Your task to perform on an android device: turn pop-ups off in chrome Image 0: 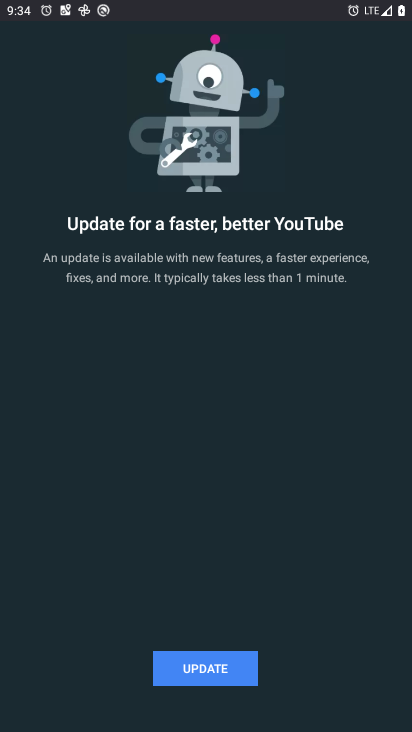
Step 0: press home button
Your task to perform on an android device: turn pop-ups off in chrome Image 1: 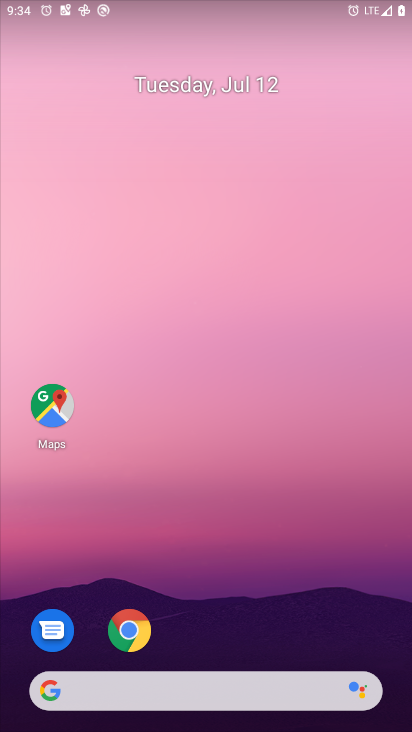
Step 1: click (127, 621)
Your task to perform on an android device: turn pop-ups off in chrome Image 2: 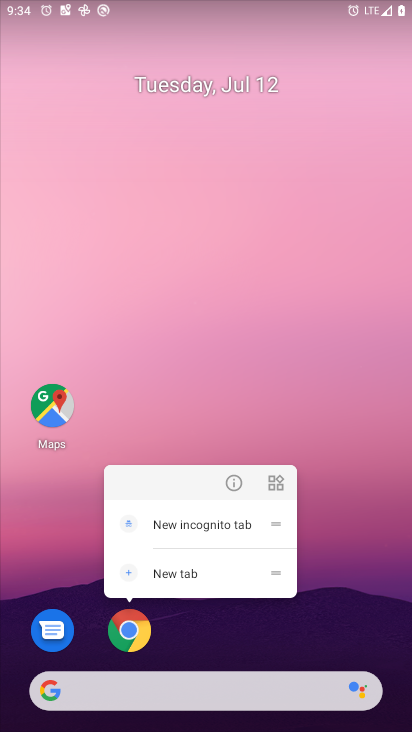
Step 2: click (125, 635)
Your task to perform on an android device: turn pop-ups off in chrome Image 3: 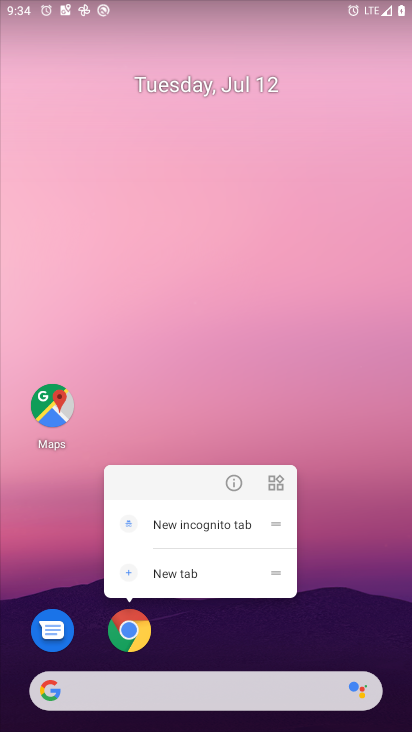
Step 3: click (126, 635)
Your task to perform on an android device: turn pop-ups off in chrome Image 4: 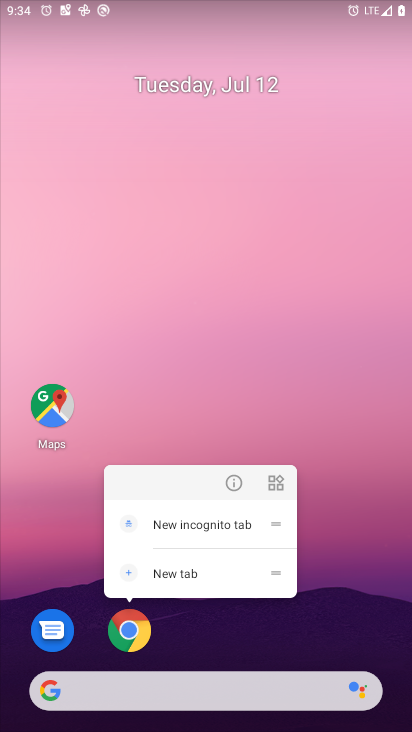
Step 4: click (127, 633)
Your task to perform on an android device: turn pop-ups off in chrome Image 5: 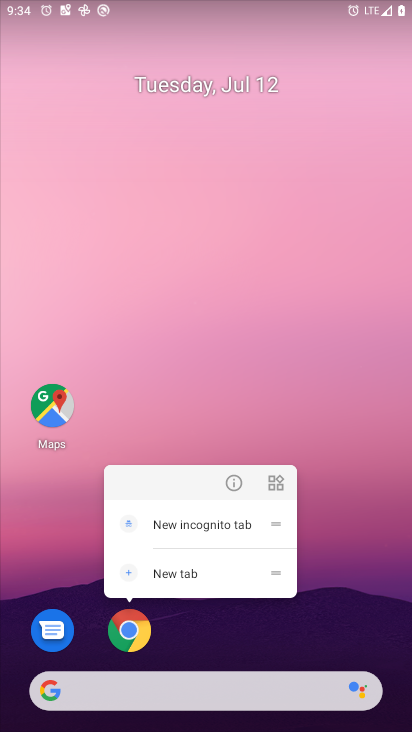
Step 5: click (123, 626)
Your task to perform on an android device: turn pop-ups off in chrome Image 6: 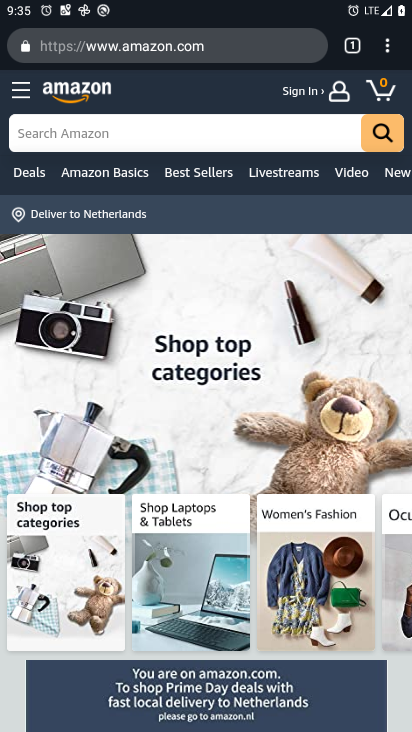
Step 6: drag from (385, 44) to (234, 557)
Your task to perform on an android device: turn pop-ups off in chrome Image 7: 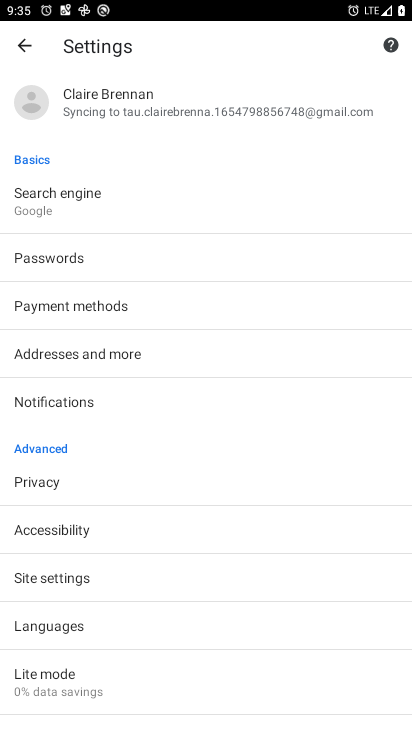
Step 7: click (84, 577)
Your task to perform on an android device: turn pop-ups off in chrome Image 8: 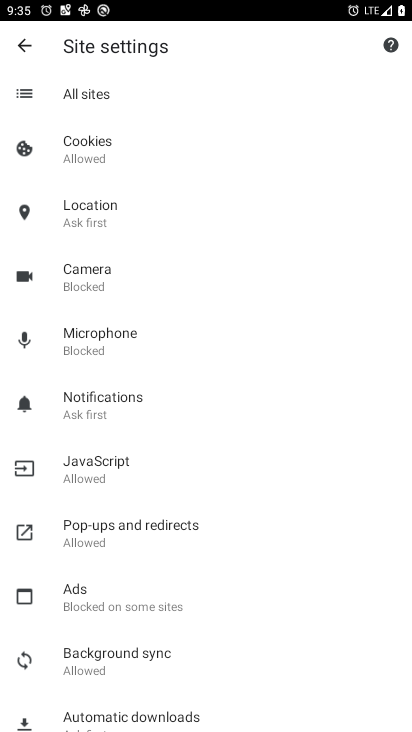
Step 8: click (97, 540)
Your task to perform on an android device: turn pop-ups off in chrome Image 9: 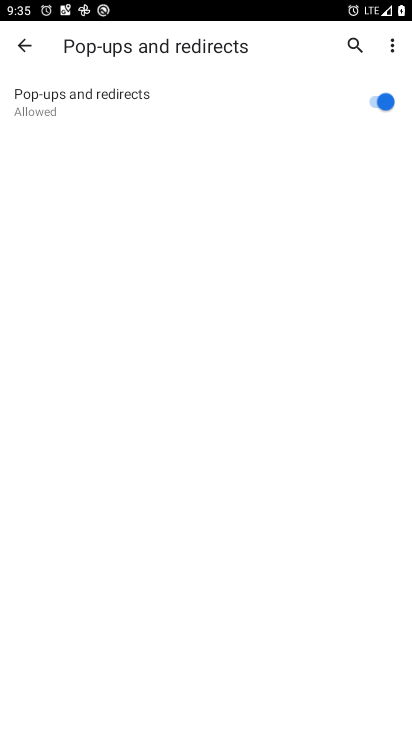
Step 9: task complete